Your task to perform on an android device: search for starred emails in the gmail app Image 0: 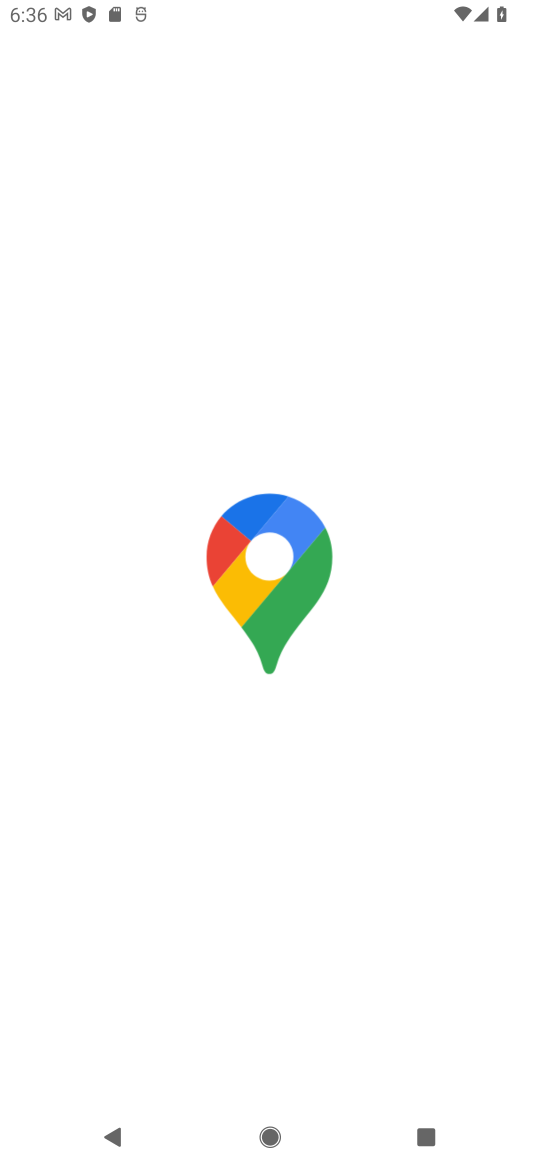
Step 0: press home button
Your task to perform on an android device: search for starred emails in the gmail app Image 1: 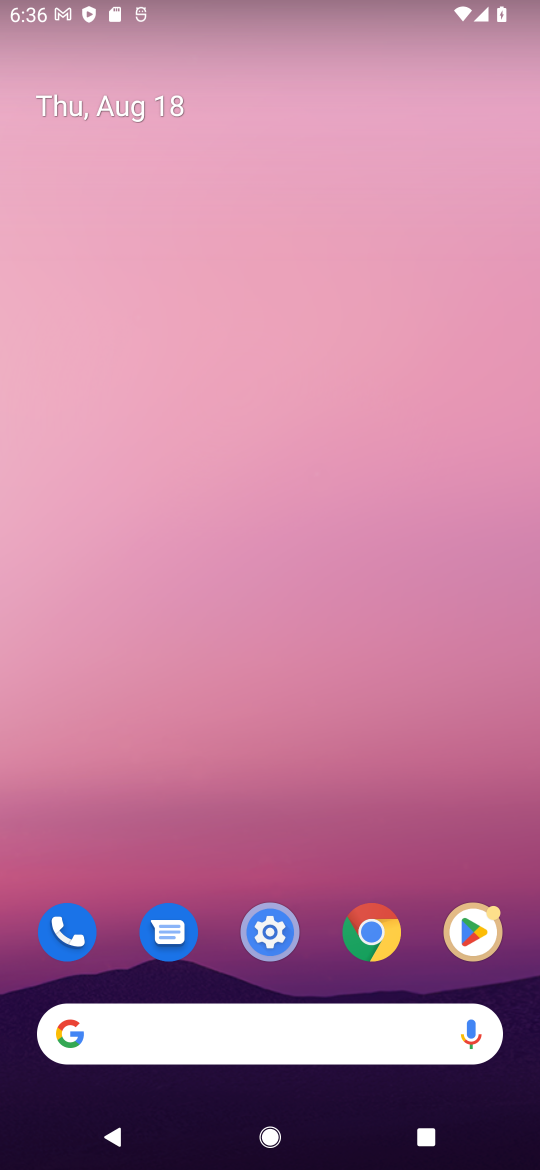
Step 1: drag from (417, 355) to (428, 110)
Your task to perform on an android device: search for starred emails in the gmail app Image 2: 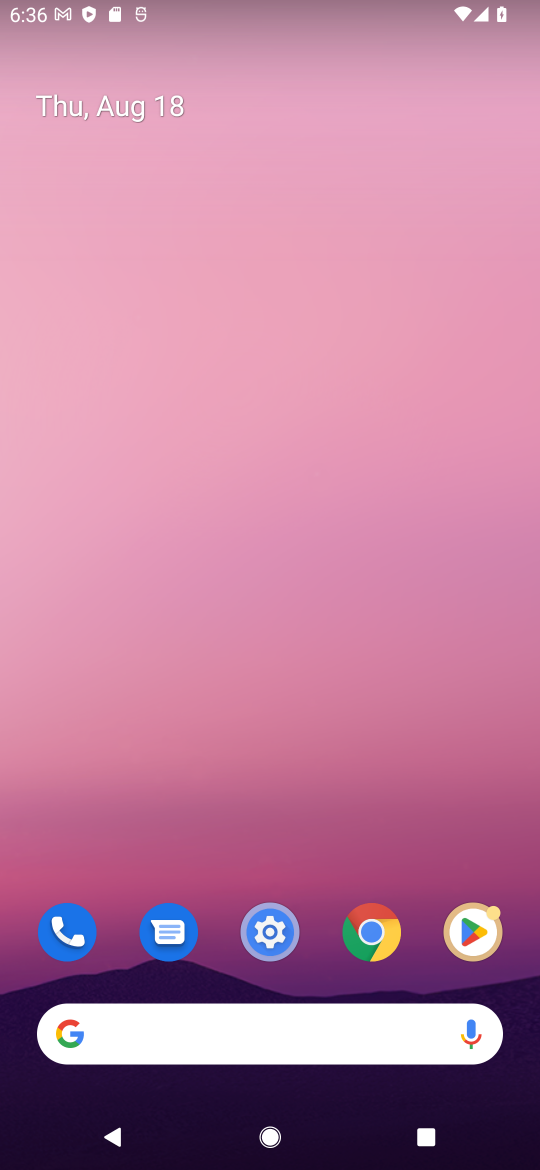
Step 2: drag from (330, 916) to (344, 64)
Your task to perform on an android device: search for starred emails in the gmail app Image 3: 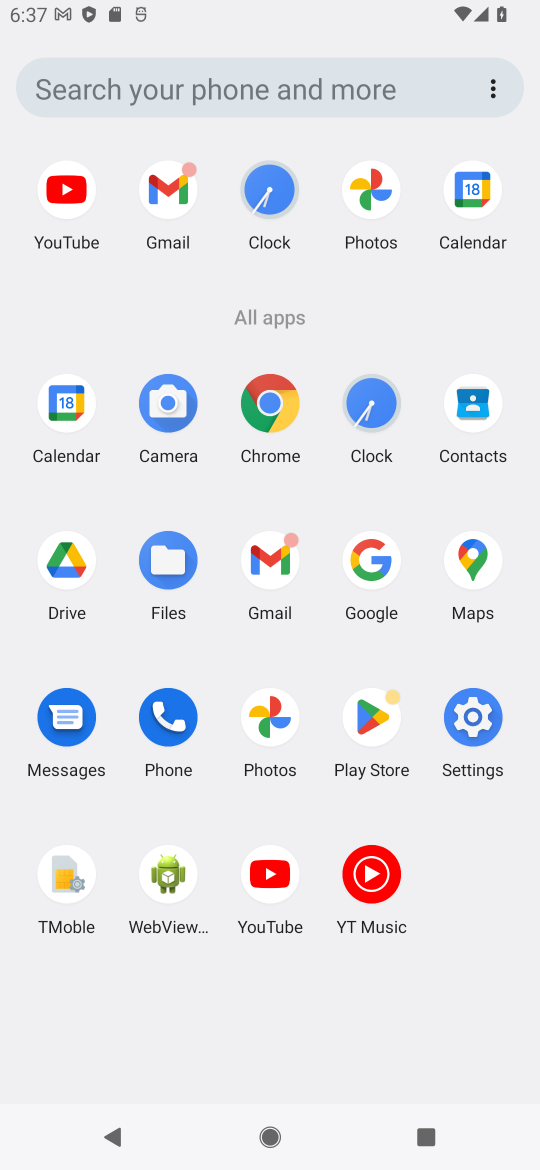
Step 3: click (265, 549)
Your task to perform on an android device: search for starred emails in the gmail app Image 4: 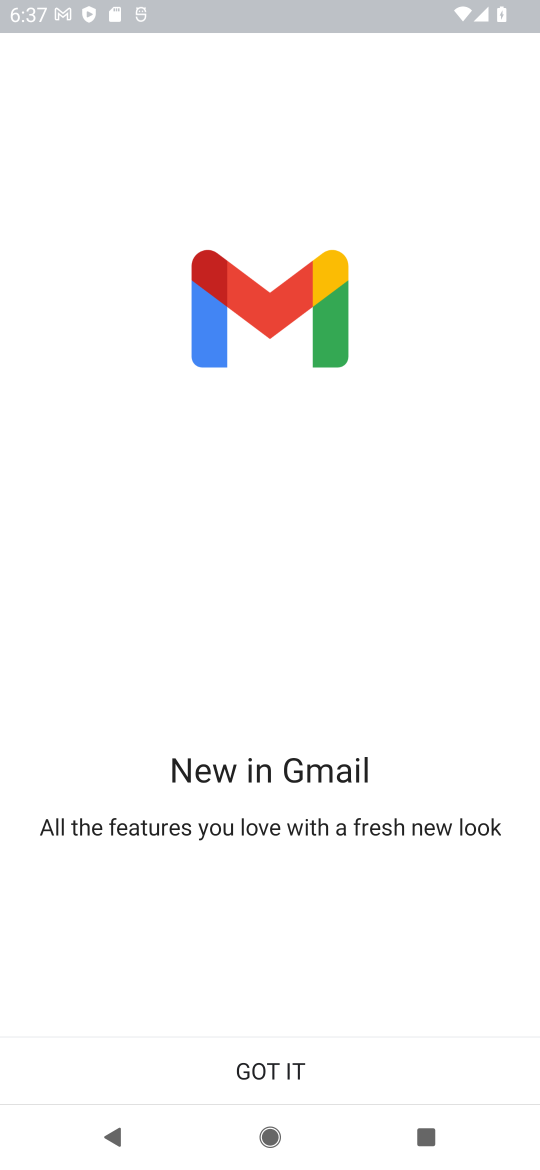
Step 4: click (279, 1054)
Your task to perform on an android device: search for starred emails in the gmail app Image 5: 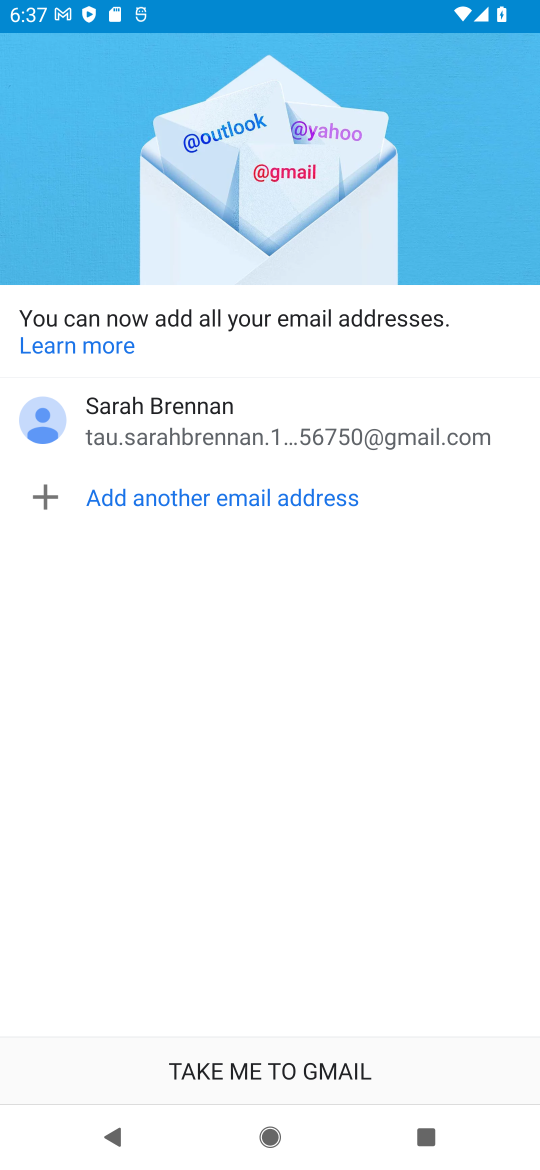
Step 5: click (316, 1060)
Your task to perform on an android device: search for starred emails in the gmail app Image 6: 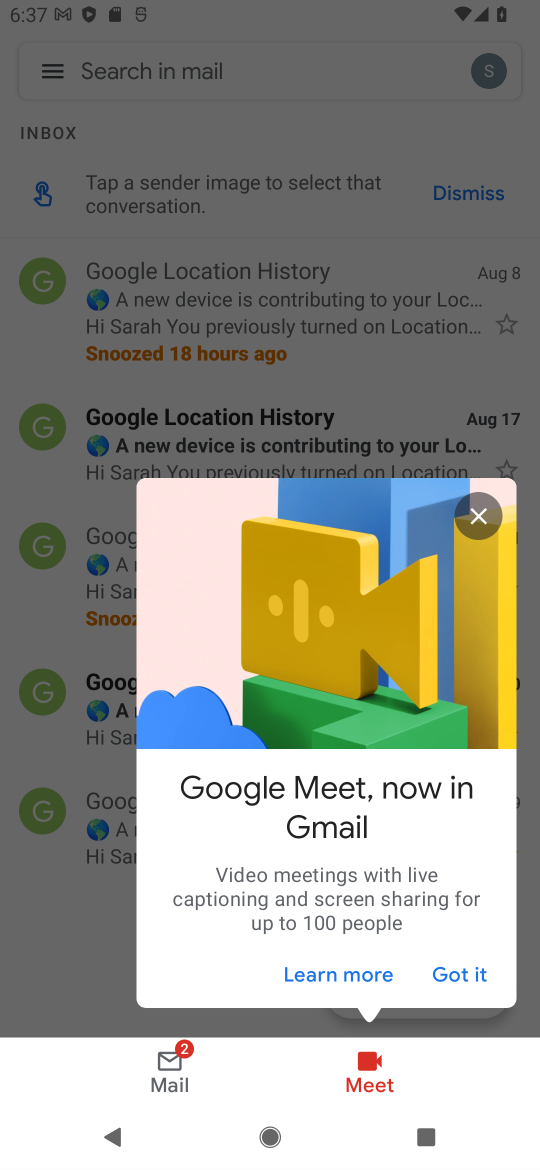
Step 6: click (476, 504)
Your task to perform on an android device: search for starred emails in the gmail app Image 7: 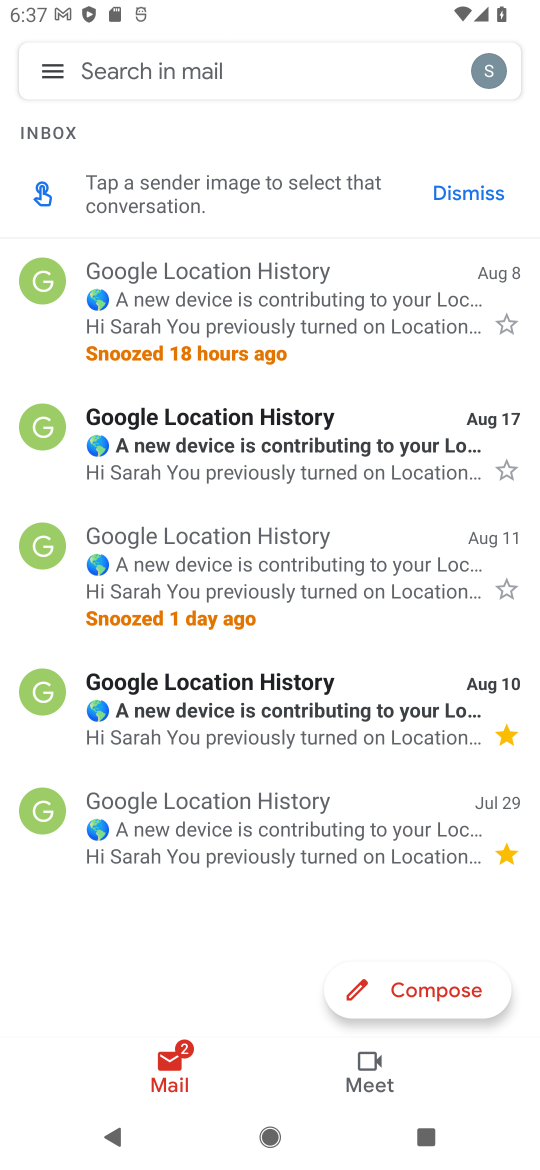
Step 7: click (51, 69)
Your task to perform on an android device: search for starred emails in the gmail app Image 8: 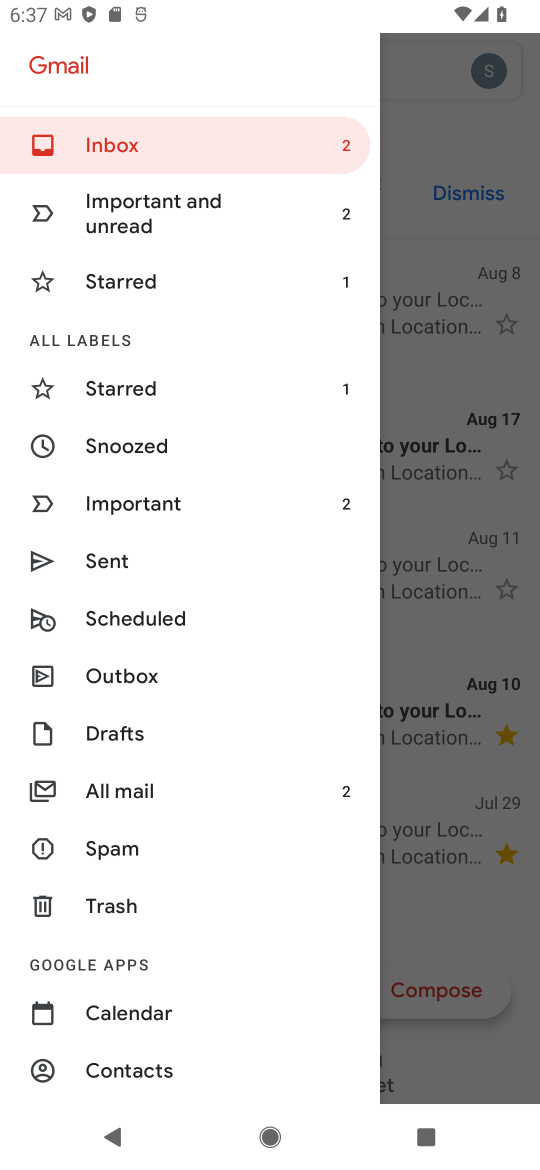
Step 8: click (120, 378)
Your task to perform on an android device: search for starred emails in the gmail app Image 9: 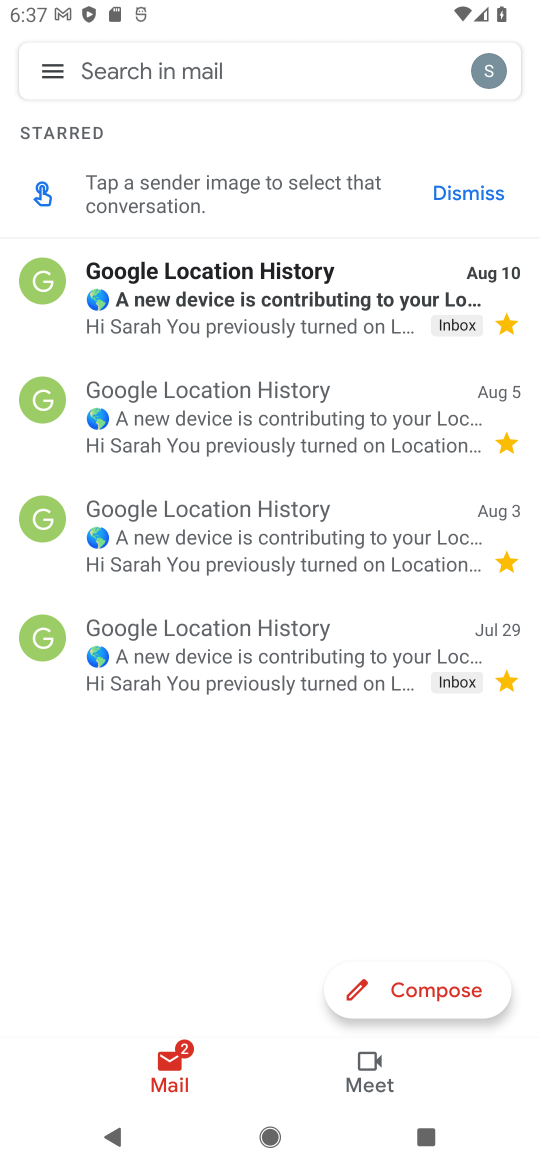
Step 9: task complete